Your task to perform on an android device: See recent photos Image 0: 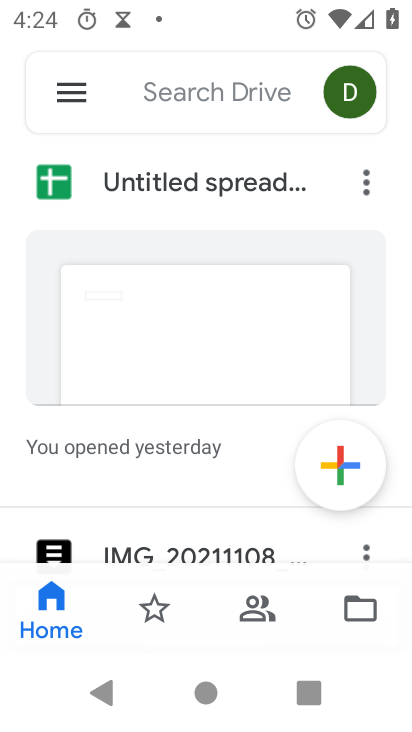
Step 0: press home button
Your task to perform on an android device: See recent photos Image 1: 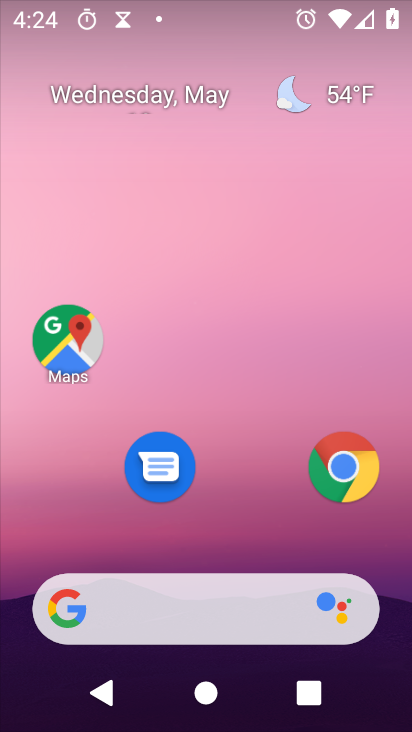
Step 1: drag from (227, 506) to (151, 19)
Your task to perform on an android device: See recent photos Image 2: 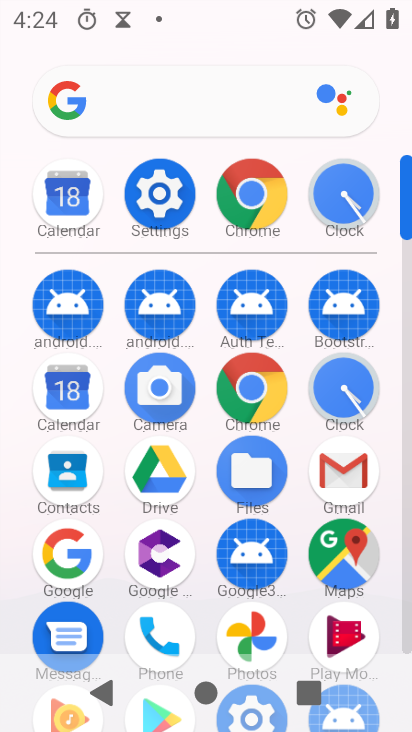
Step 2: click (250, 614)
Your task to perform on an android device: See recent photos Image 3: 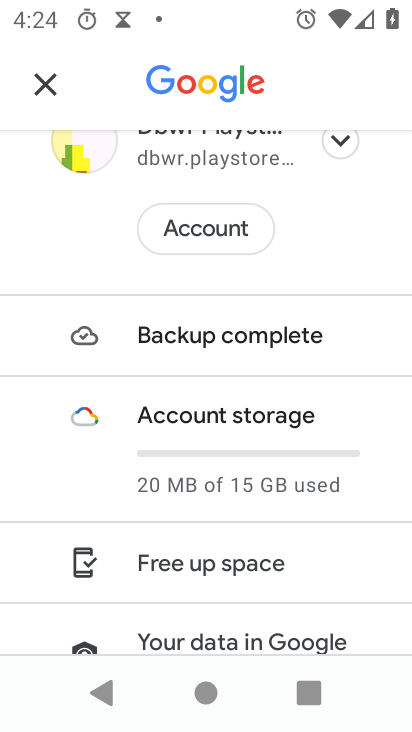
Step 3: click (50, 87)
Your task to perform on an android device: See recent photos Image 4: 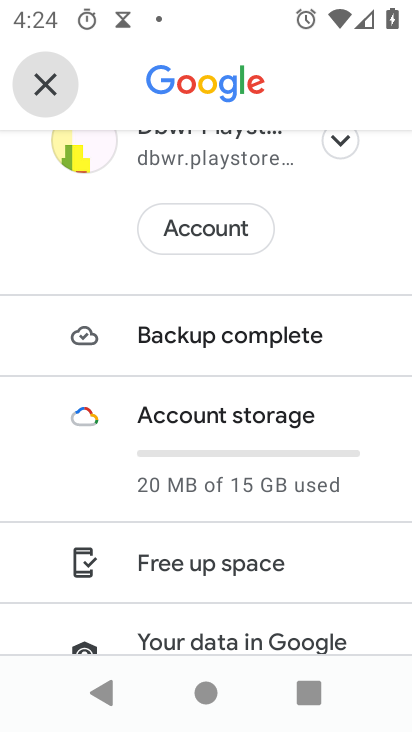
Step 4: click (50, 87)
Your task to perform on an android device: See recent photos Image 5: 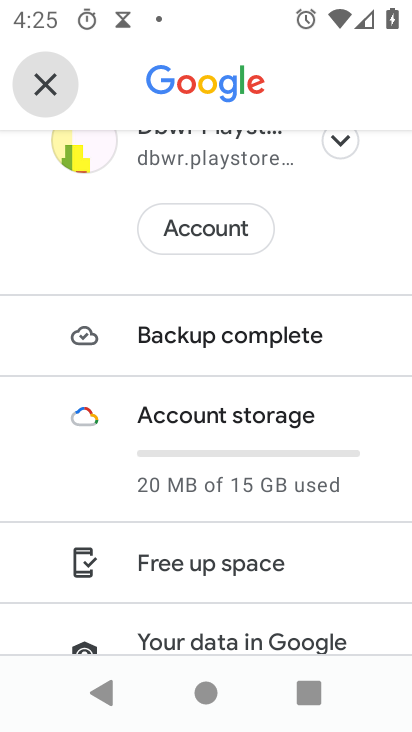
Step 5: task complete